Your task to perform on an android device: Show me popular videos on Youtube Image 0: 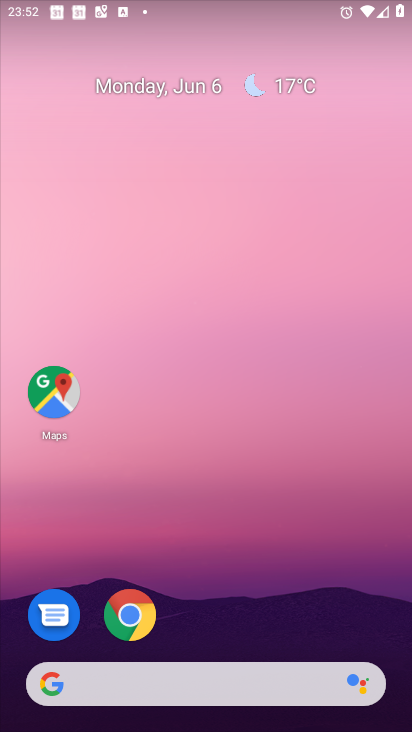
Step 0: drag from (391, 711) to (289, 186)
Your task to perform on an android device: Show me popular videos on Youtube Image 1: 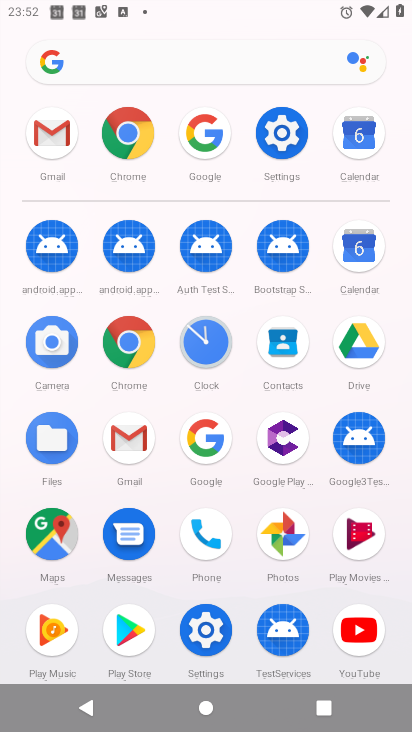
Step 1: click (362, 627)
Your task to perform on an android device: Show me popular videos on Youtube Image 2: 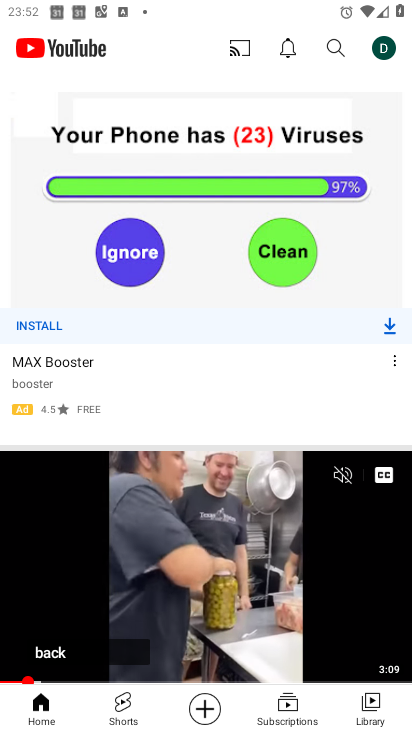
Step 2: click (325, 49)
Your task to perform on an android device: Show me popular videos on Youtube Image 3: 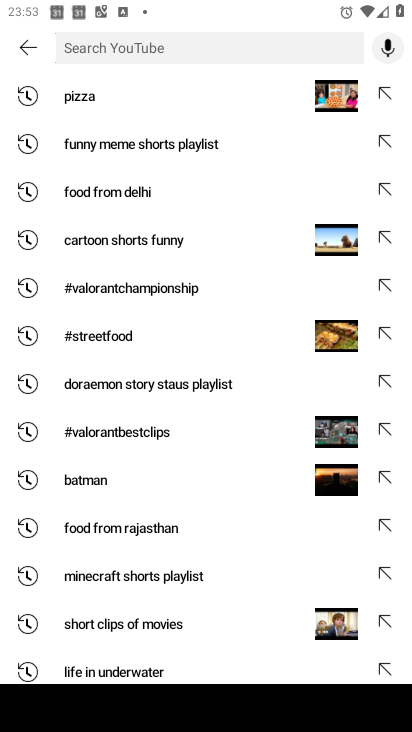
Step 3: type "popular videos"
Your task to perform on an android device: Show me popular videos on Youtube Image 4: 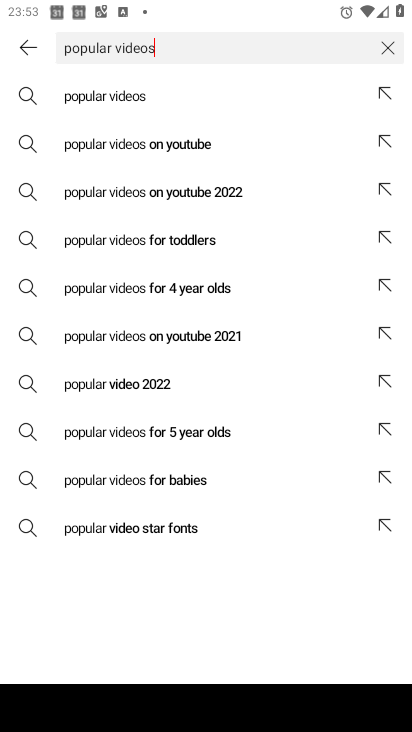
Step 4: click (88, 99)
Your task to perform on an android device: Show me popular videos on Youtube Image 5: 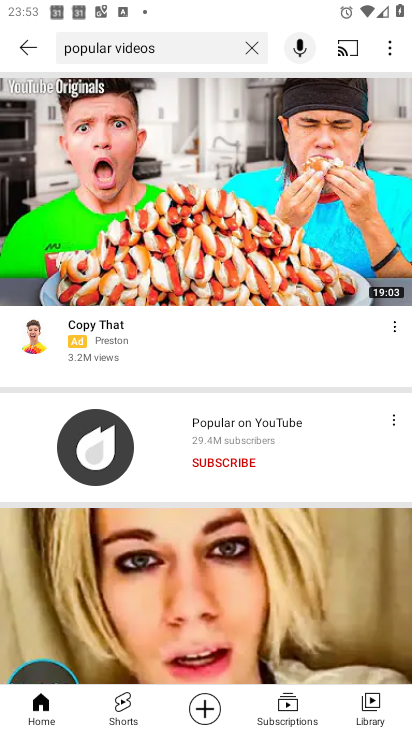
Step 5: task complete